Your task to perform on an android device: Is it going to rain tomorrow? Image 0: 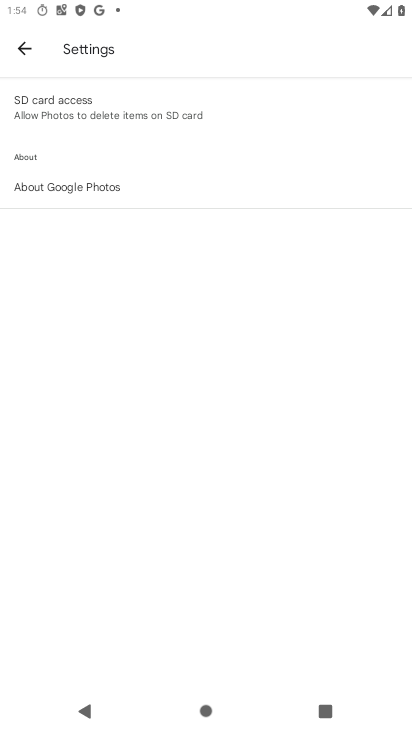
Step 0: drag from (199, 634) to (239, 339)
Your task to perform on an android device: Is it going to rain tomorrow? Image 1: 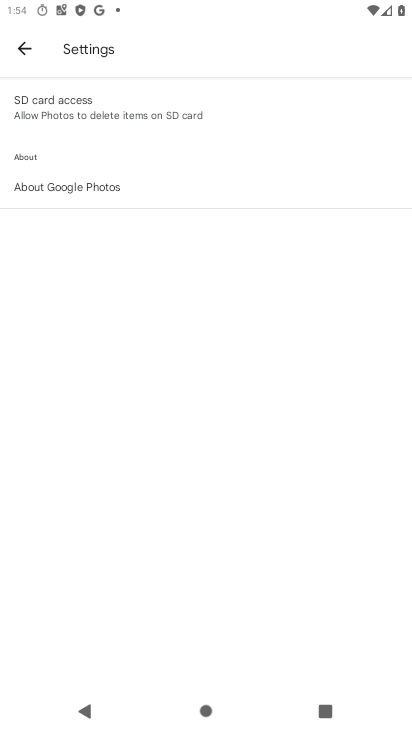
Step 1: press home button
Your task to perform on an android device: Is it going to rain tomorrow? Image 2: 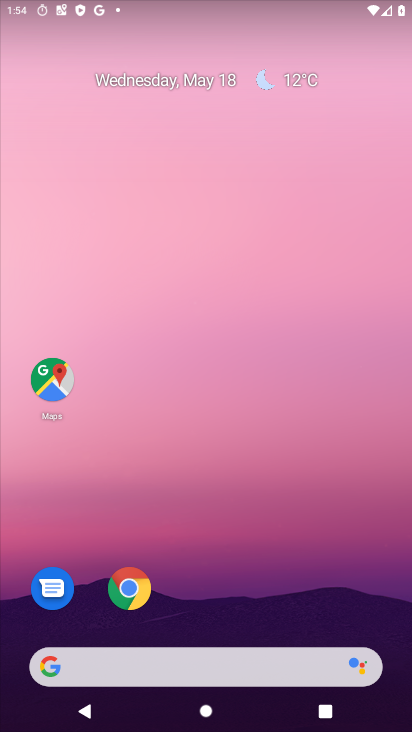
Step 2: drag from (187, 624) to (262, 6)
Your task to perform on an android device: Is it going to rain tomorrow? Image 3: 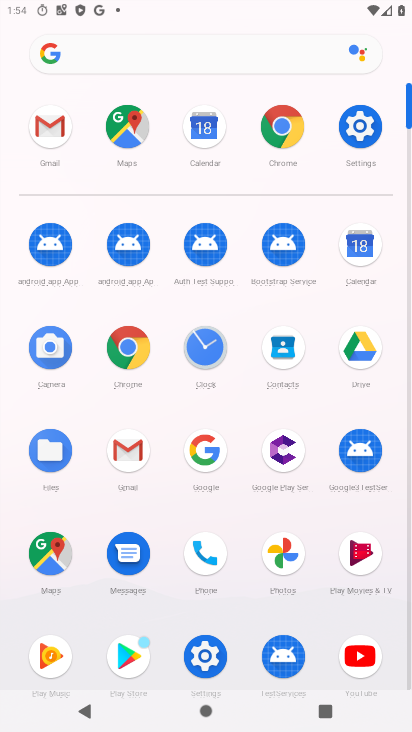
Step 3: click (150, 36)
Your task to perform on an android device: Is it going to rain tomorrow? Image 4: 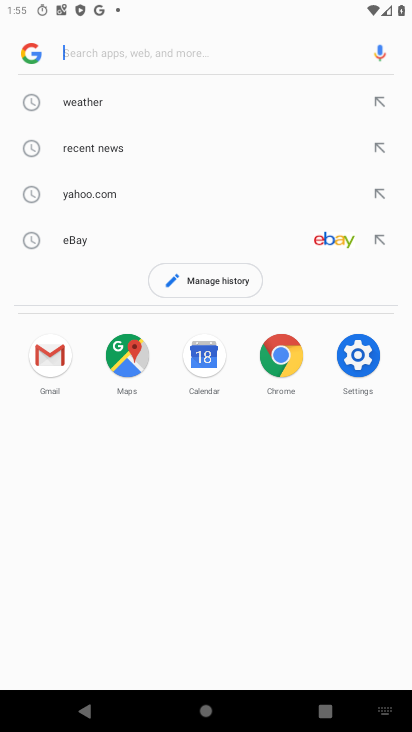
Step 4: type "rain tomorrow"
Your task to perform on an android device: Is it going to rain tomorrow? Image 5: 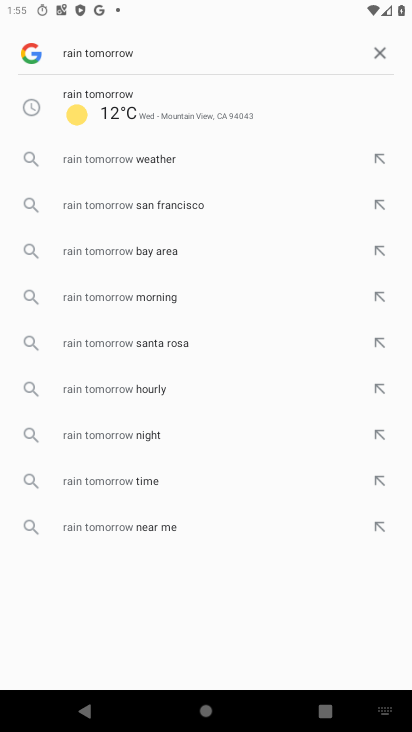
Step 5: click (114, 99)
Your task to perform on an android device: Is it going to rain tomorrow? Image 6: 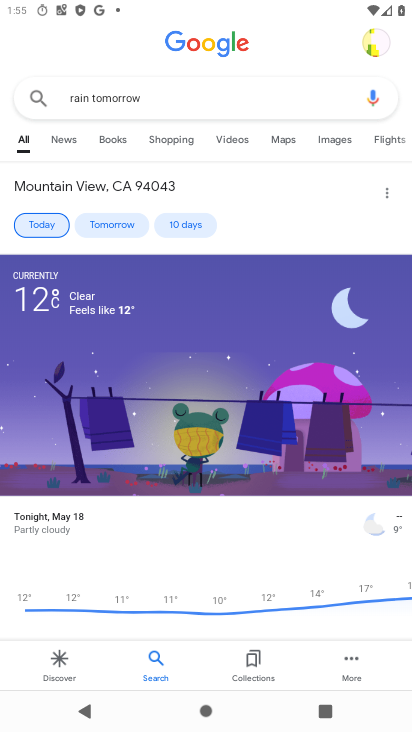
Step 6: task complete